Your task to perform on an android device: Go to Google maps Image 0: 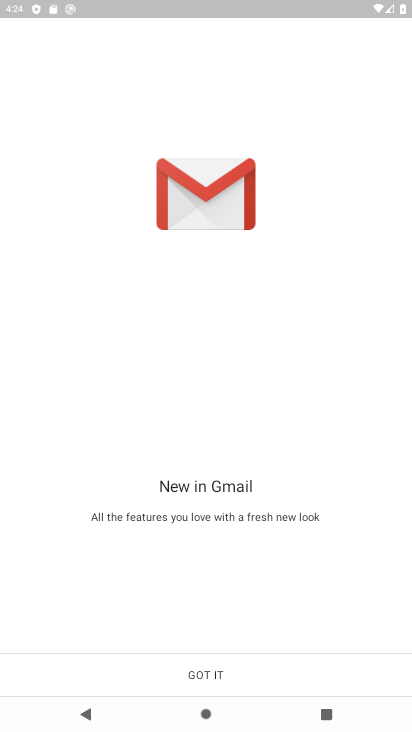
Step 0: press home button
Your task to perform on an android device: Go to Google maps Image 1: 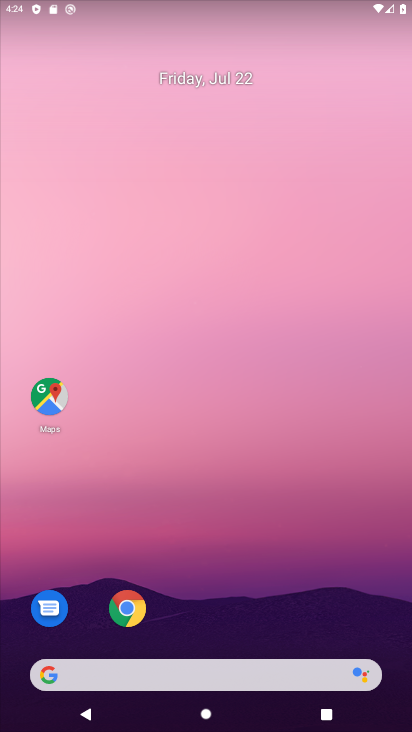
Step 1: click (58, 408)
Your task to perform on an android device: Go to Google maps Image 2: 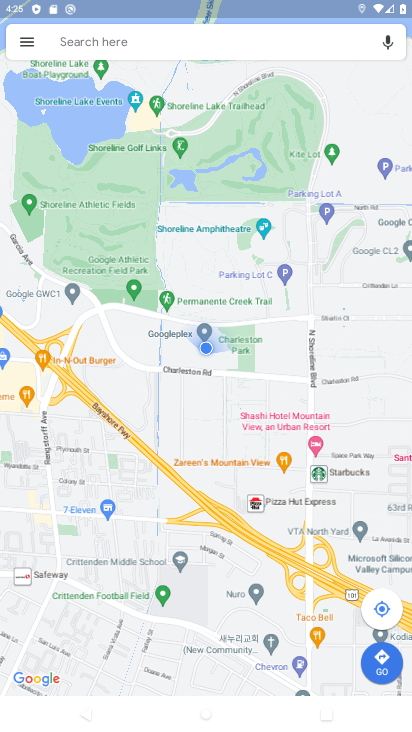
Step 2: task complete